Your task to perform on an android device: Go to display settings Image 0: 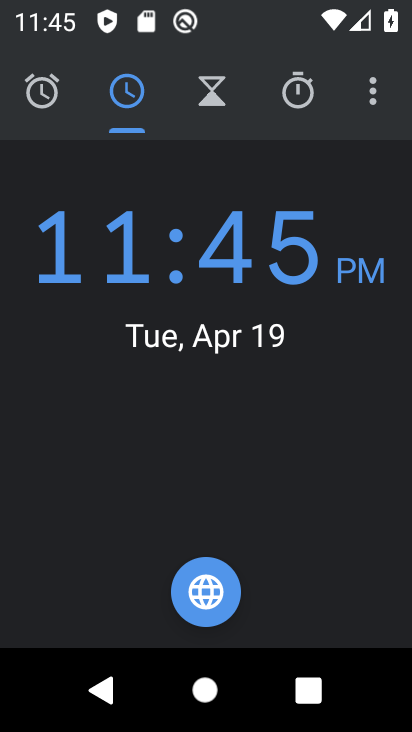
Step 0: press home button
Your task to perform on an android device: Go to display settings Image 1: 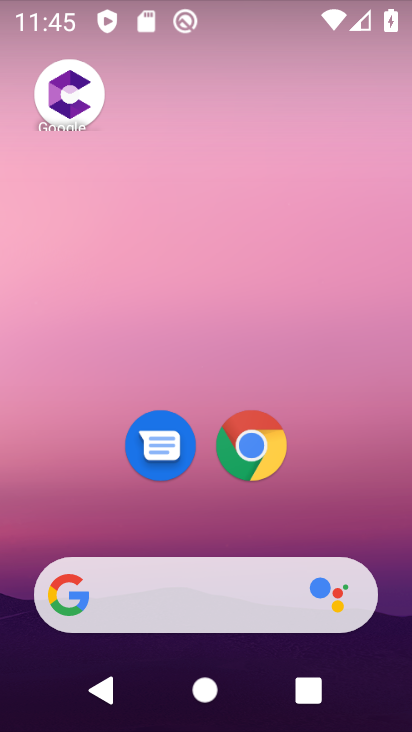
Step 1: drag from (333, 485) to (281, 36)
Your task to perform on an android device: Go to display settings Image 2: 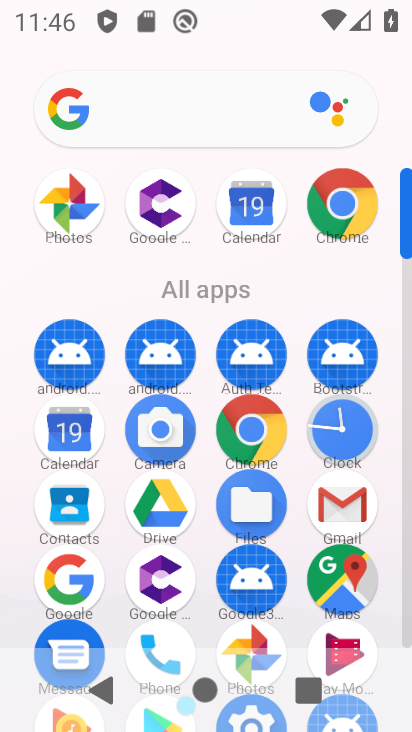
Step 2: drag from (299, 618) to (281, 247)
Your task to perform on an android device: Go to display settings Image 3: 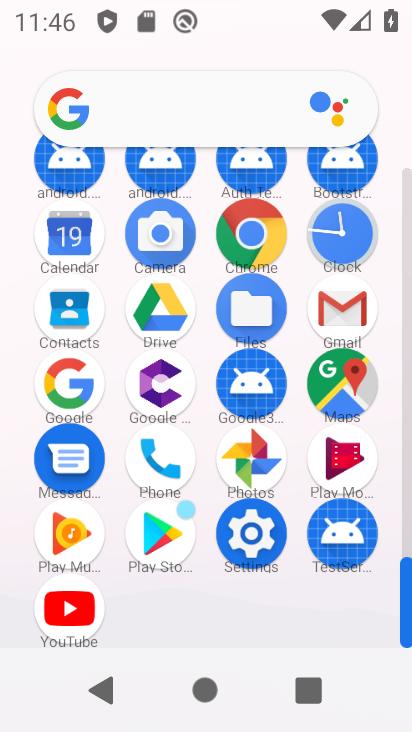
Step 3: click (253, 545)
Your task to perform on an android device: Go to display settings Image 4: 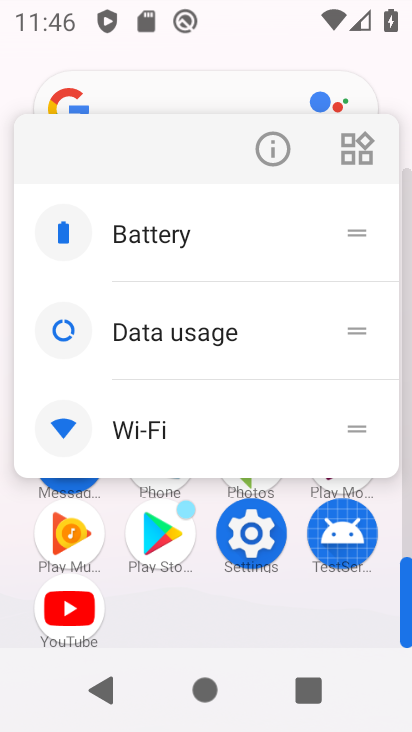
Step 4: click (254, 538)
Your task to perform on an android device: Go to display settings Image 5: 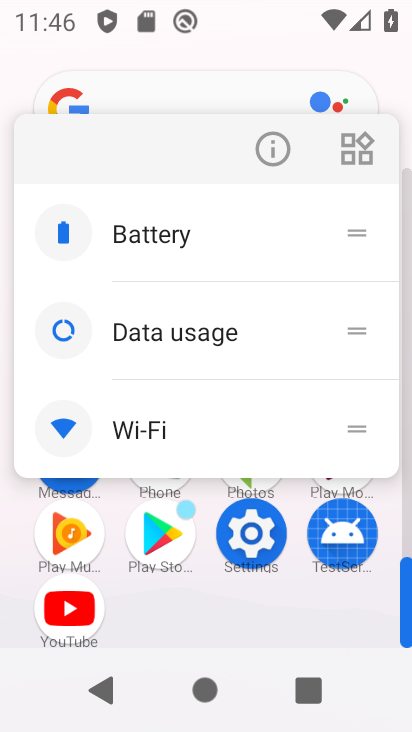
Step 5: click (255, 532)
Your task to perform on an android device: Go to display settings Image 6: 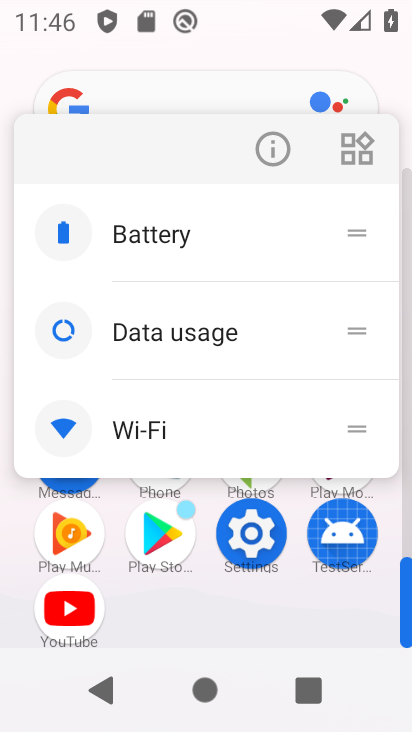
Step 6: click (255, 532)
Your task to perform on an android device: Go to display settings Image 7: 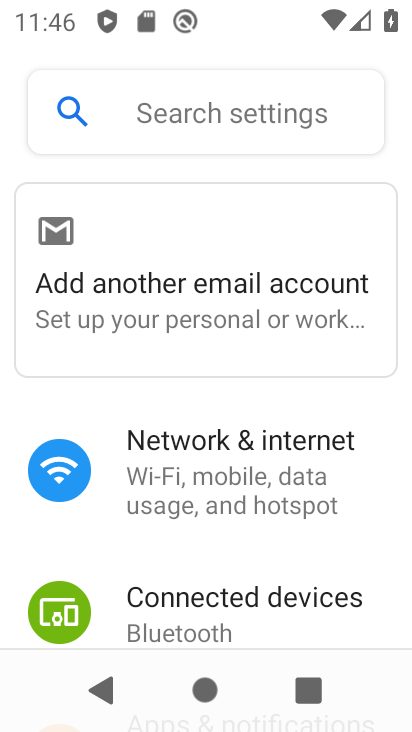
Step 7: drag from (263, 574) to (286, 145)
Your task to perform on an android device: Go to display settings Image 8: 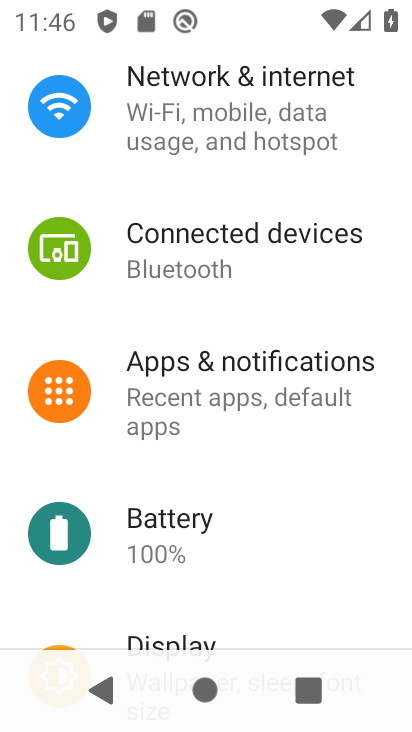
Step 8: drag from (233, 544) to (311, 297)
Your task to perform on an android device: Go to display settings Image 9: 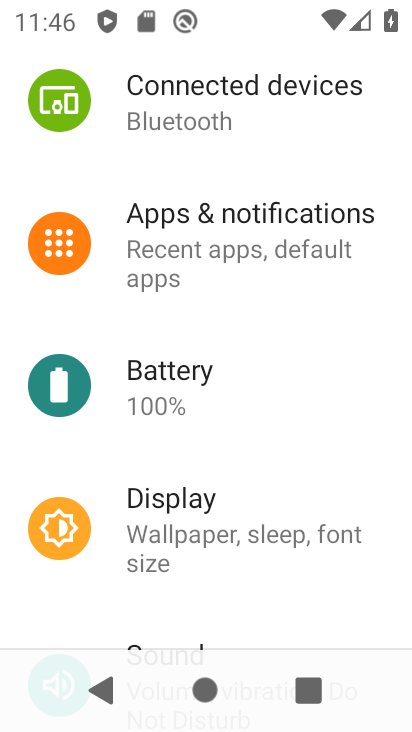
Step 9: click (180, 507)
Your task to perform on an android device: Go to display settings Image 10: 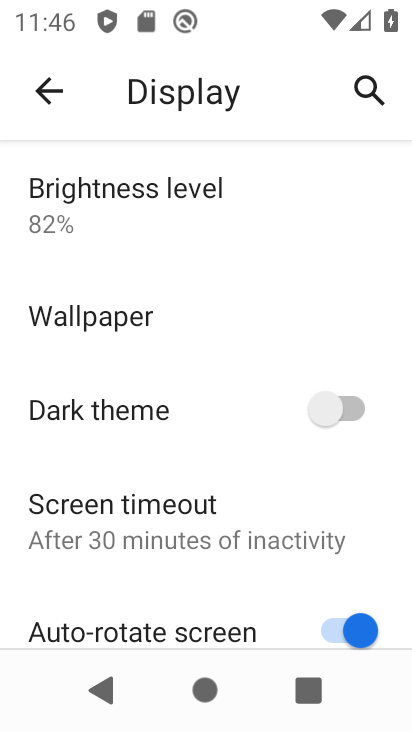
Step 10: task complete